Your task to perform on an android device: search for starred emails in the gmail app Image 0: 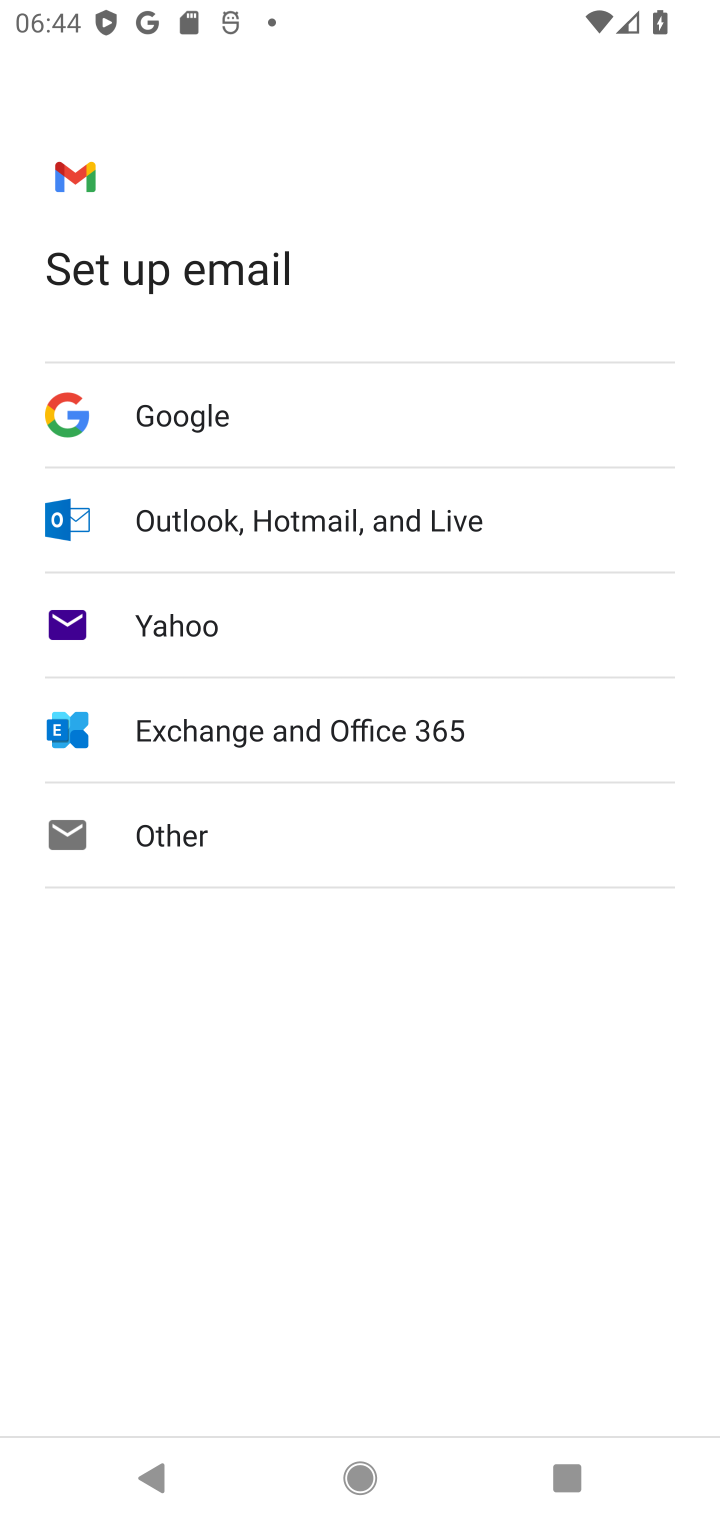
Step 0: press home button
Your task to perform on an android device: search for starred emails in the gmail app Image 1: 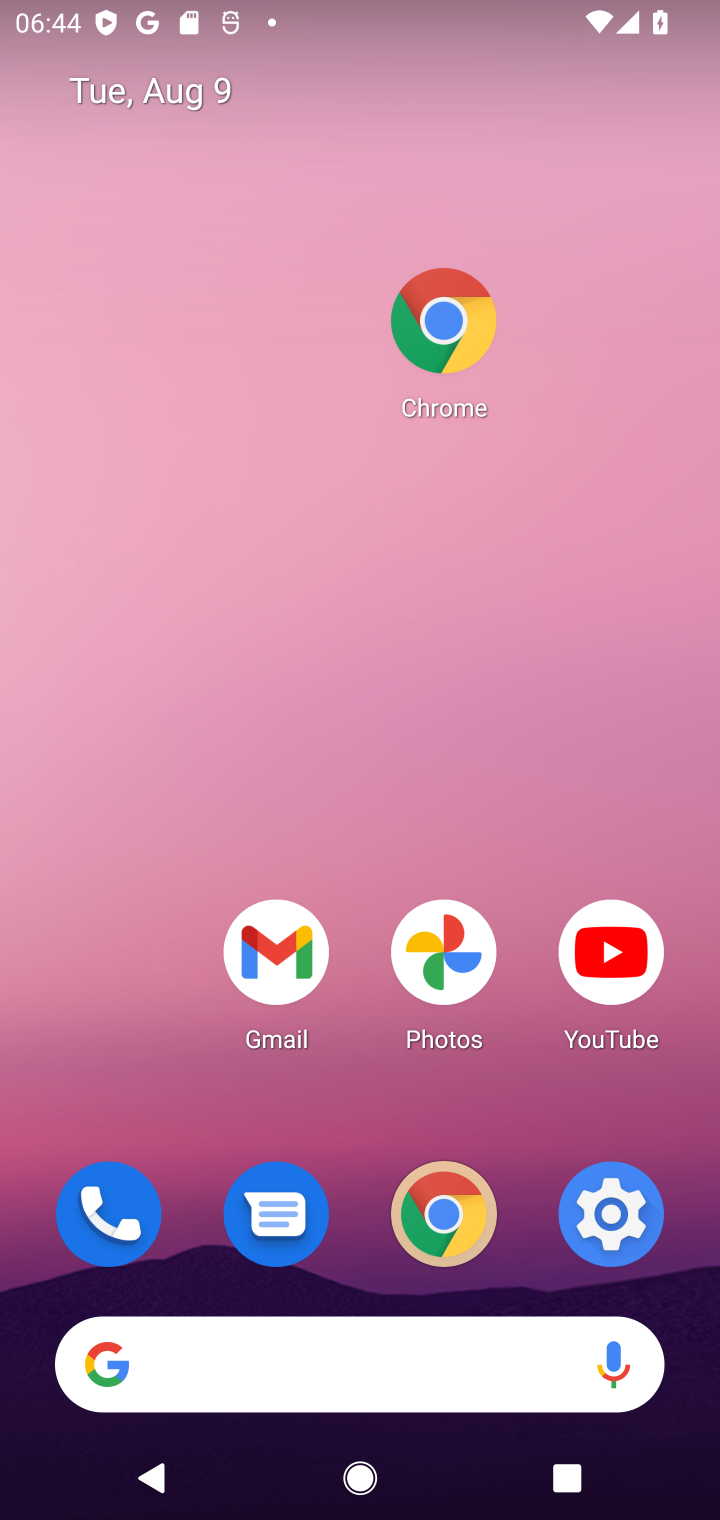
Step 1: click (271, 951)
Your task to perform on an android device: search for starred emails in the gmail app Image 2: 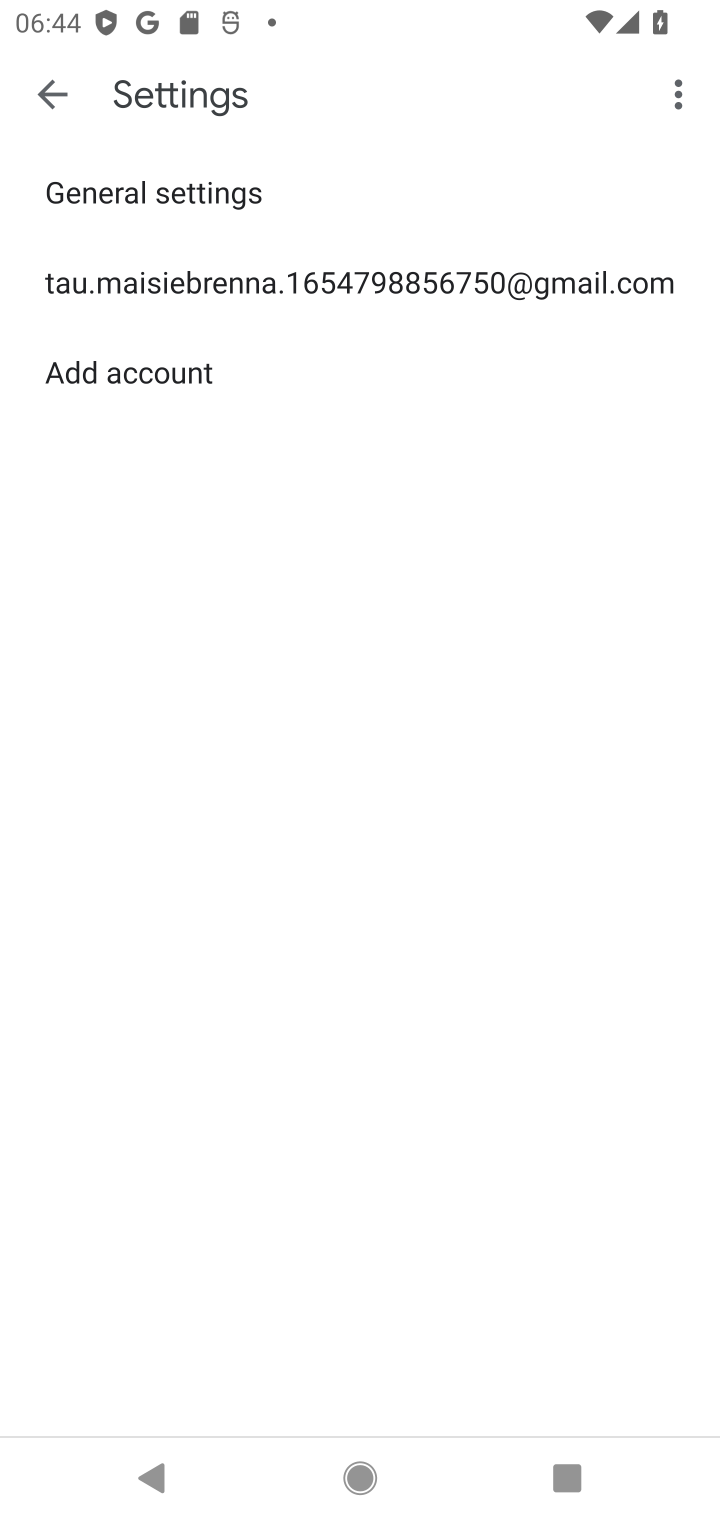
Step 2: click (45, 94)
Your task to perform on an android device: search for starred emails in the gmail app Image 3: 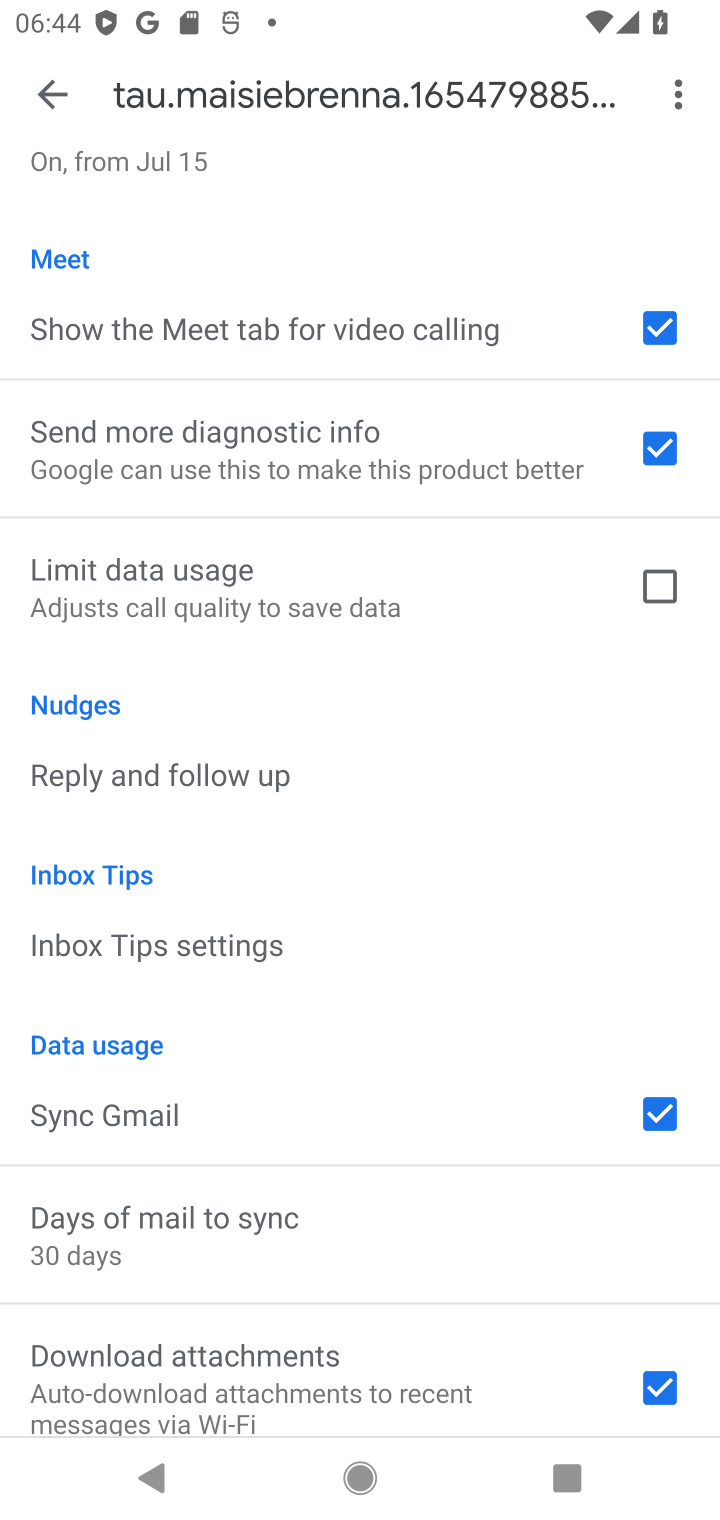
Step 3: click (46, 105)
Your task to perform on an android device: search for starred emails in the gmail app Image 4: 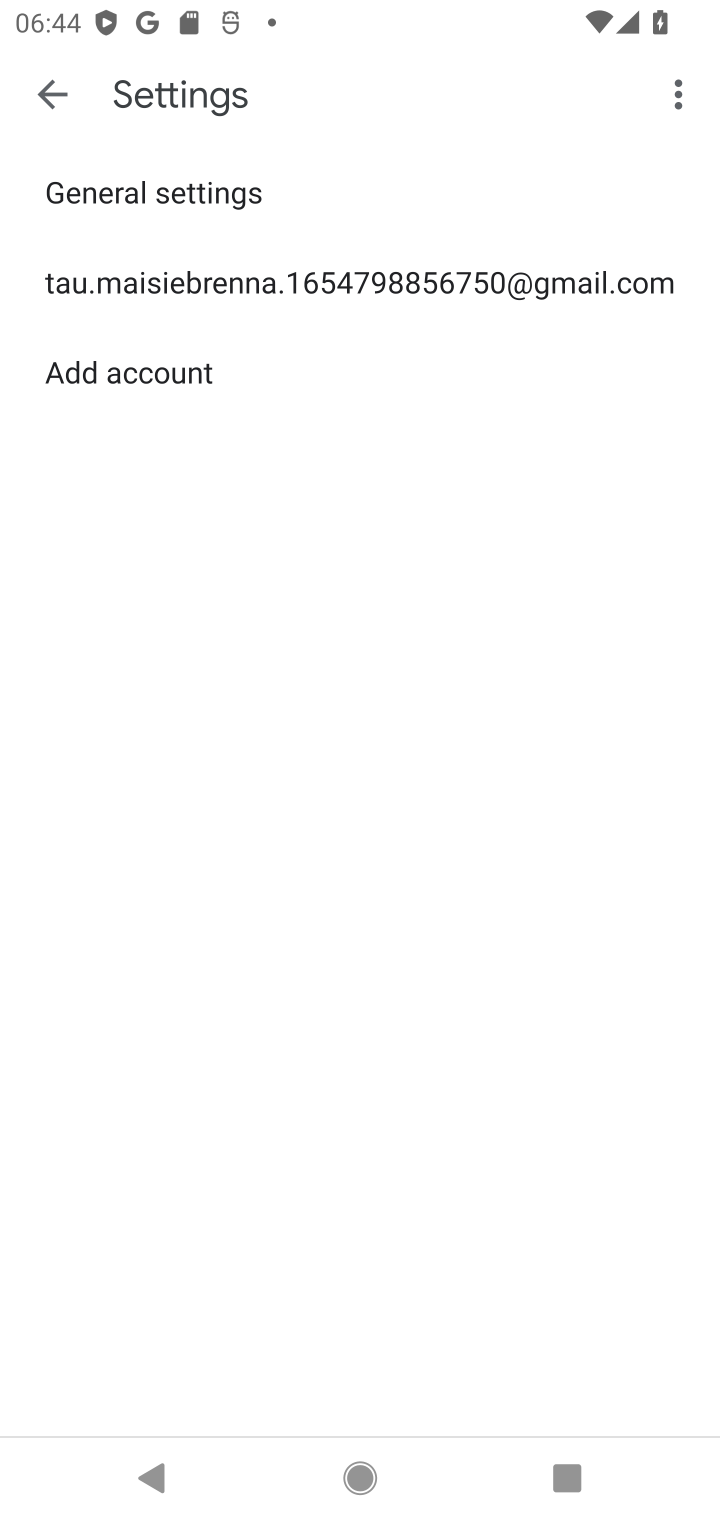
Step 4: click (47, 93)
Your task to perform on an android device: search for starred emails in the gmail app Image 5: 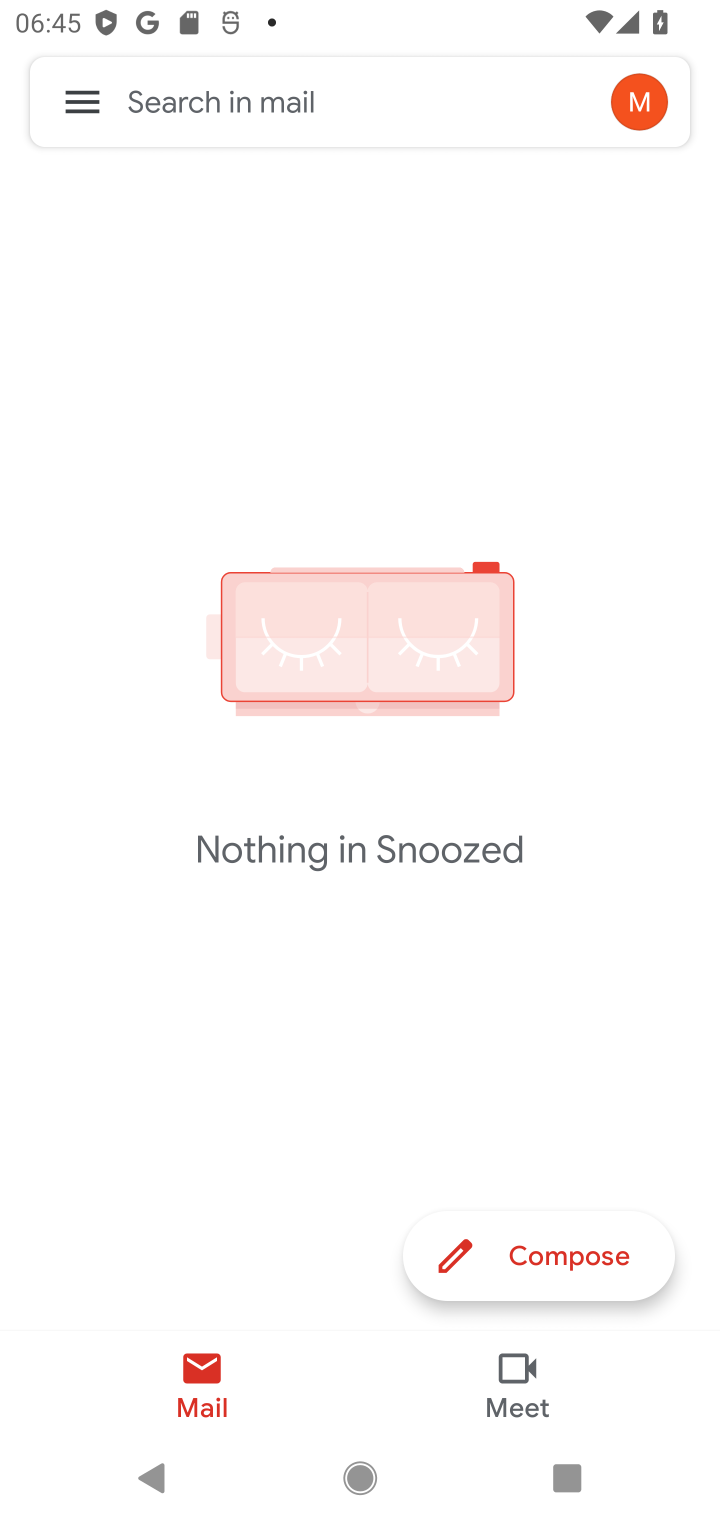
Step 5: click (59, 118)
Your task to perform on an android device: search for starred emails in the gmail app Image 6: 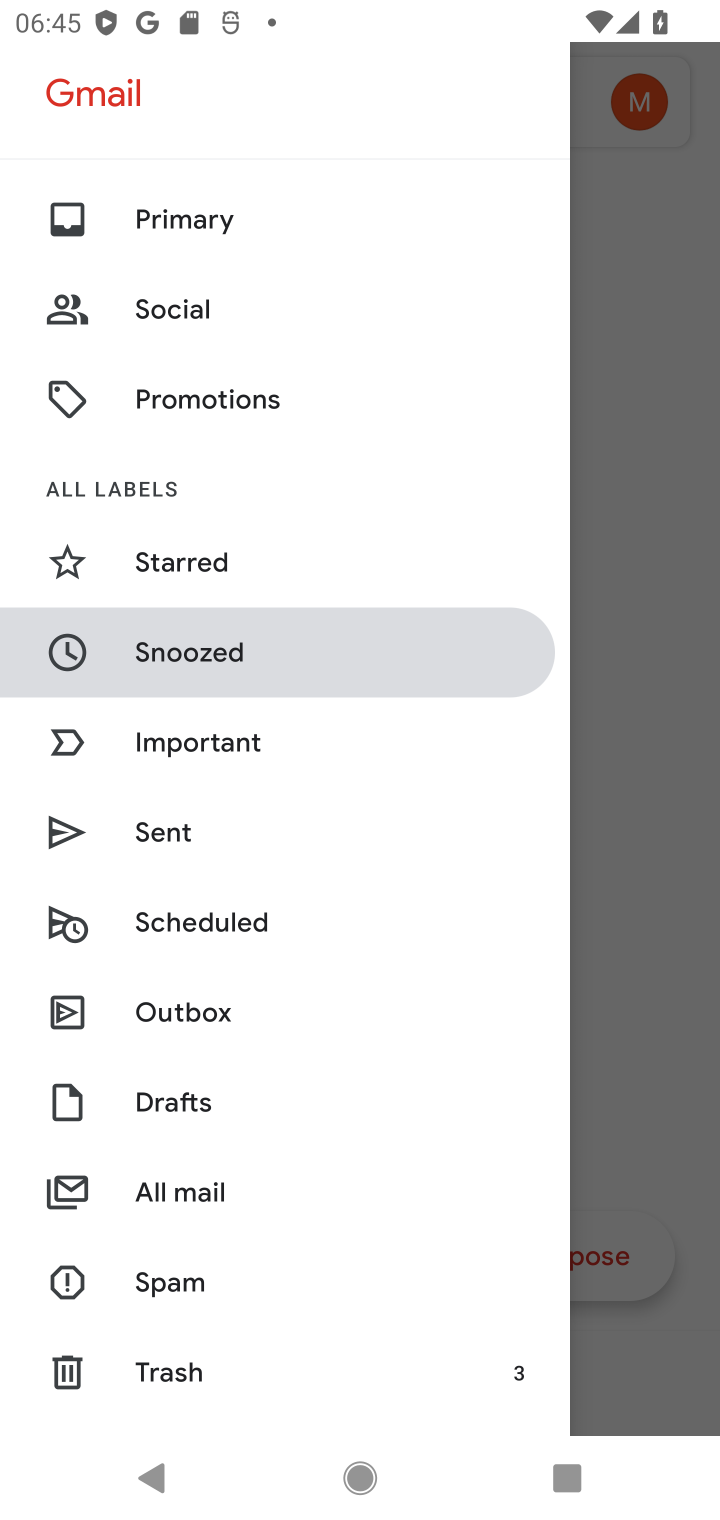
Step 6: click (194, 569)
Your task to perform on an android device: search for starred emails in the gmail app Image 7: 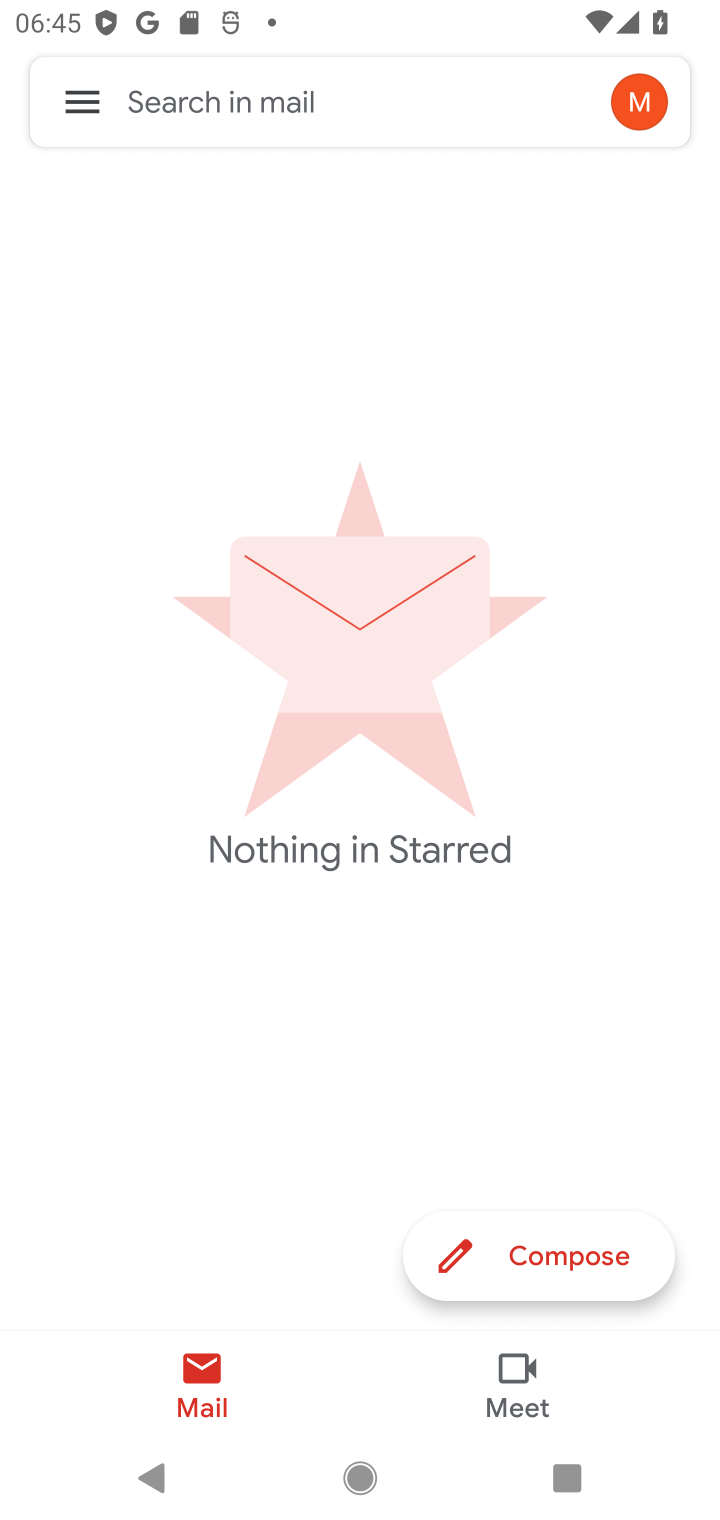
Step 7: task complete